Your task to perform on an android device: Open the web browser Image 0: 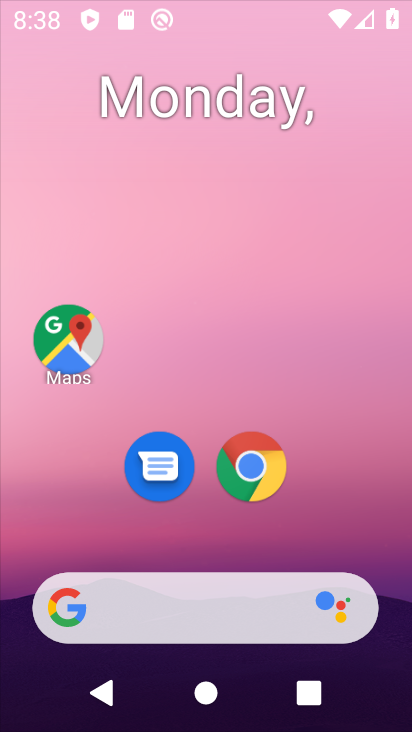
Step 0: drag from (250, 175) to (263, 129)
Your task to perform on an android device: Open the web browser Image 1: 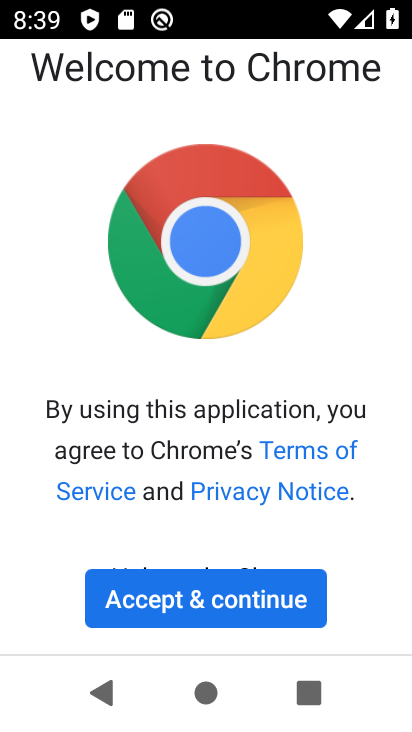
Step 1: press home button
Your task to perform on an android device: Open the web browser Image 2: 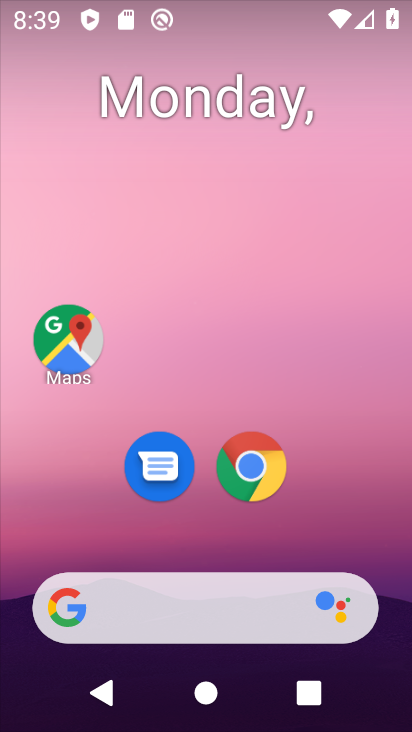
Step 2: drag from (219, 629) to (194, 146)
Your task to perform on an android device: Open the web browser Image 3: 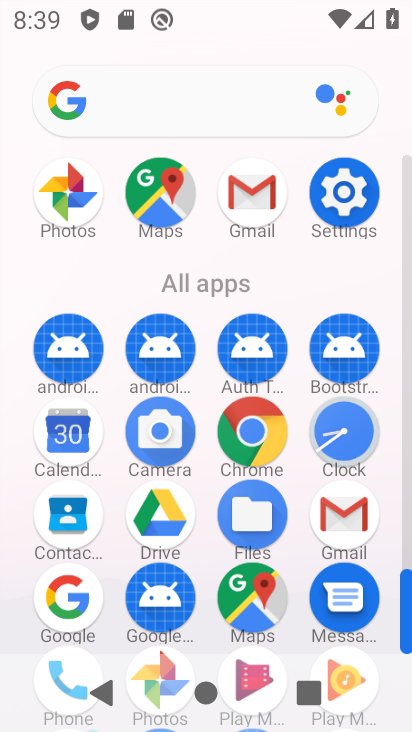
Step 3: click (263, 422)
Your task to perform on an android device: Open the web browser Image 4: 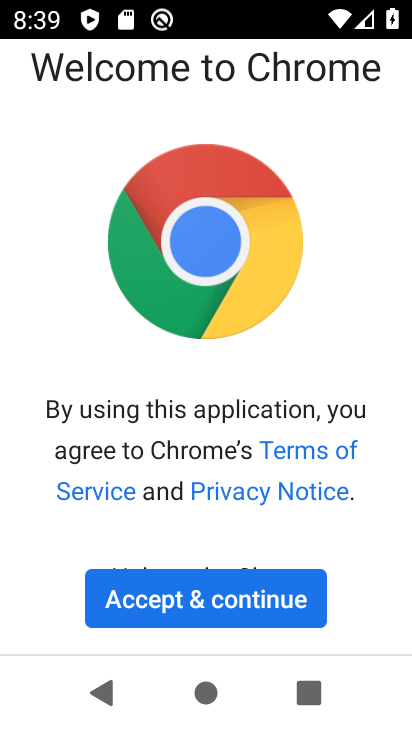
Step 4: click (241, 595)
Your task to perform on an android device: Open the web browser Image 5: 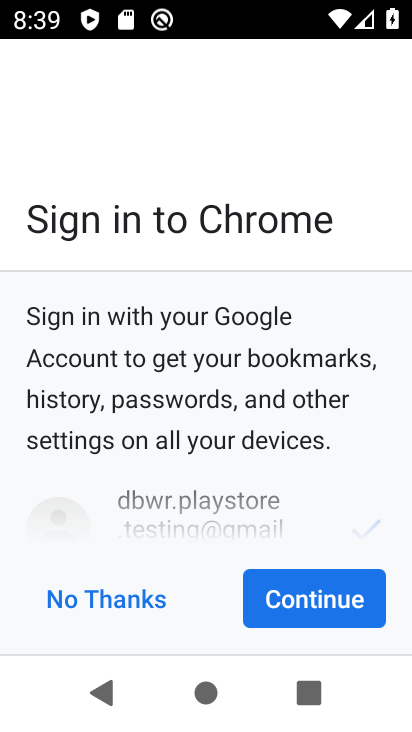
Step 5: click (127, 596)
Your task to perform on an android device: Open the web browser Image 6: 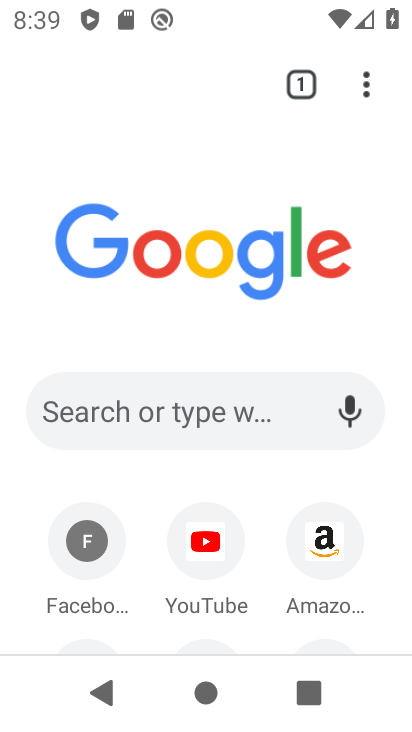
Step 6: task complete